Your task to perform on an android device: turn on the 24-hour format for clock Image 0: 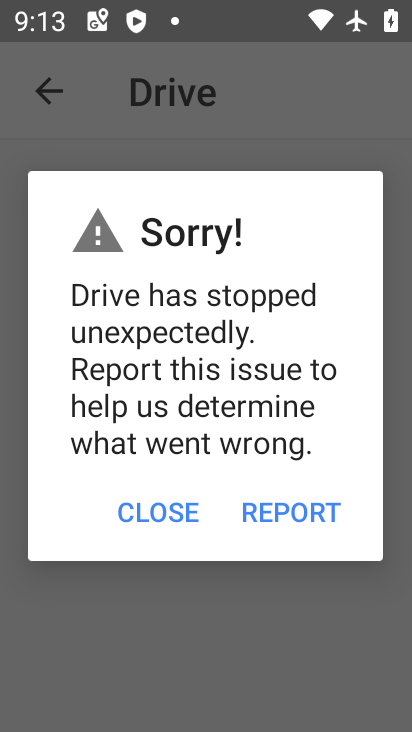
Step 0: press home button
Your task to perform on an android device: turn on the 24-hour format for clock Image 1: 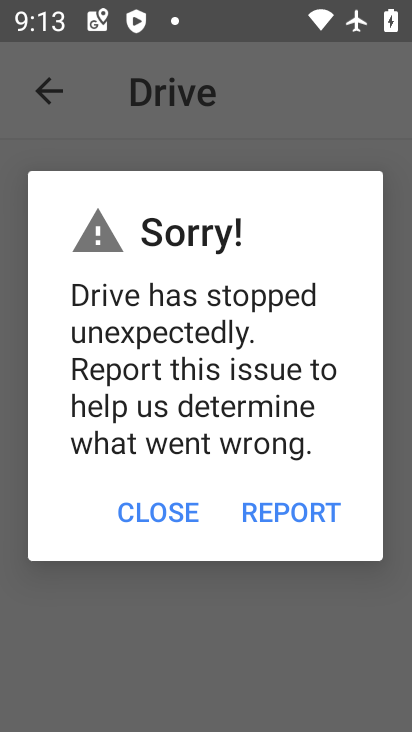
Step 1: press home button
Your task to perform on an android device: turn on the 24-hour format for clock Image 2: 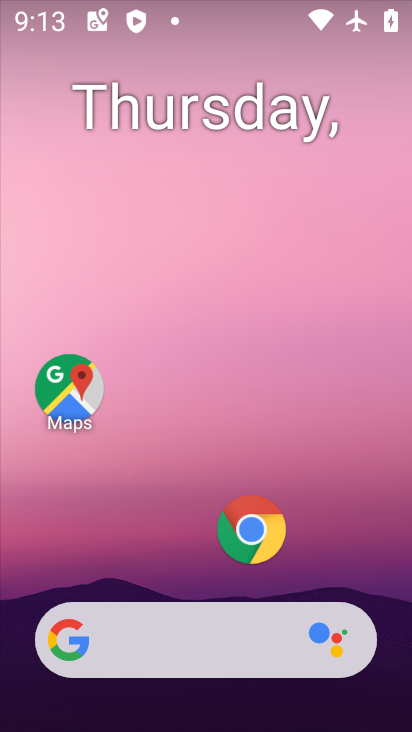
Step 2: drag from (188, 575) to (234, 93)
Your task to perform on an android device: turn on the 24-hour format for clock Image 3: 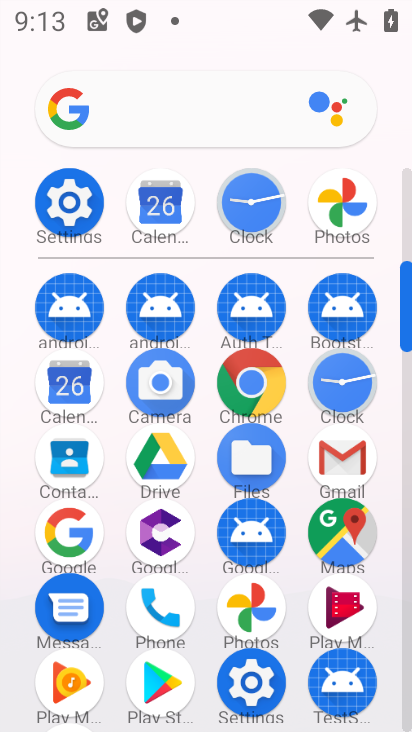
Step 3: click (339, 374)
Your task to perform on an android device: turn on the 24-hour format for clock Image 4: 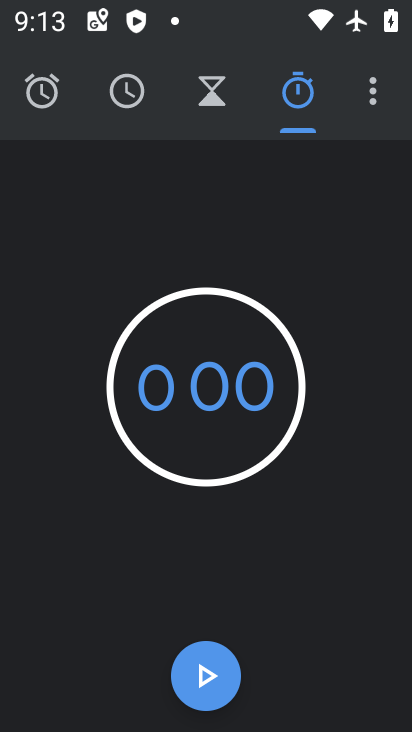
Step 4: click (362, 98)
Your task to perform on an android device: turn on the 24-hour format for clock Image 5: 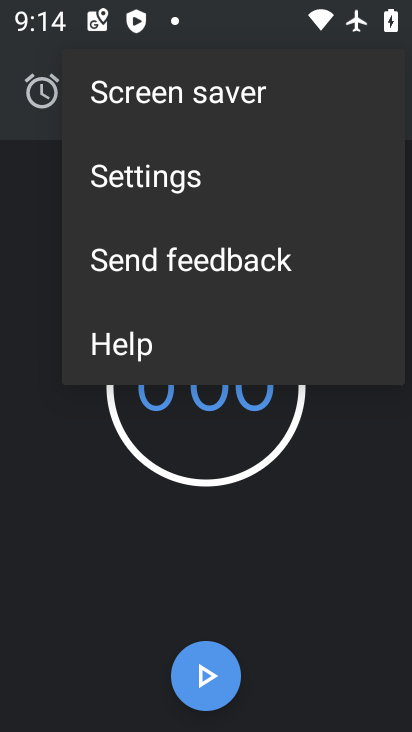
Step 5: click (208, 172)
Your task to perform on an android device: turn on the 24-hour format for clock Image 6: 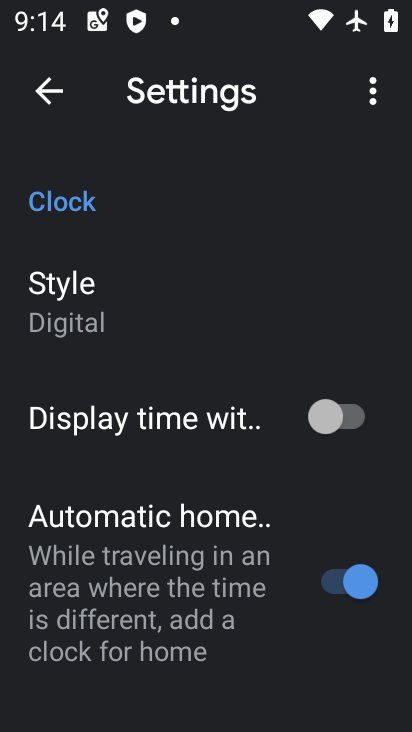
Step 6: drag from (239, 646) to (248, 269)
Your task to perform on an android device: turn on the 24-hour format for clock Image 7: 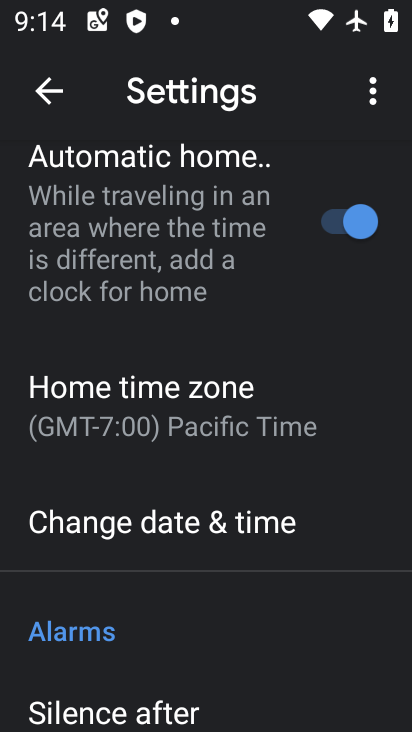
Step 7: click (299, 525)
Your task to perform on an android device: turn on the 24-hour format for clock Image 8: 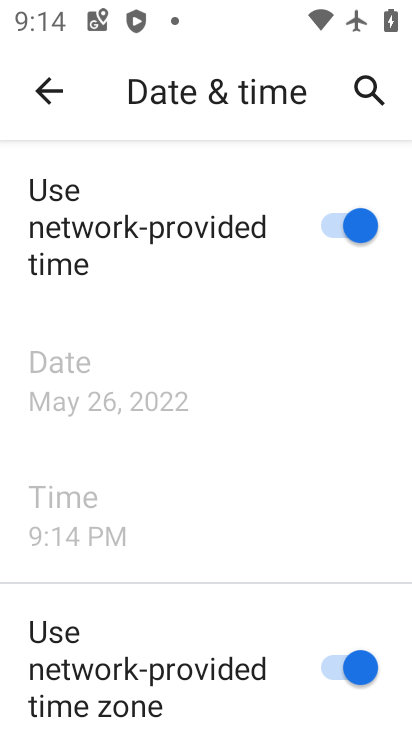
Step 8: drag from (218, 698) to (255, 221)
Your task to perform on an android device: turn on the 24-hour format for clock Image 9: 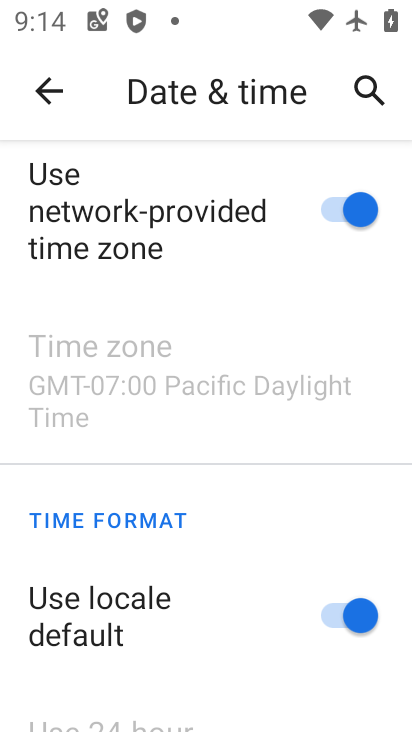
Step 9: drag from (226, 586) to (266, 318)
Your task to perform on an android device: turn on the 24-hour format for clock Image 10: 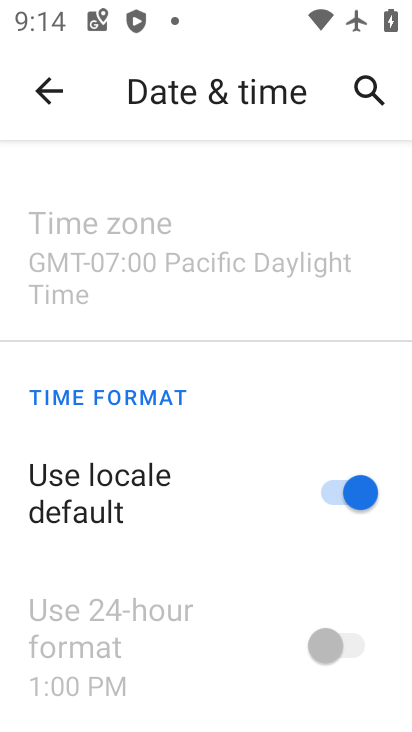
Step 10: click (345, 482)
Your task to perform on an android device: turn on the 24-hour format for clock Image 11: 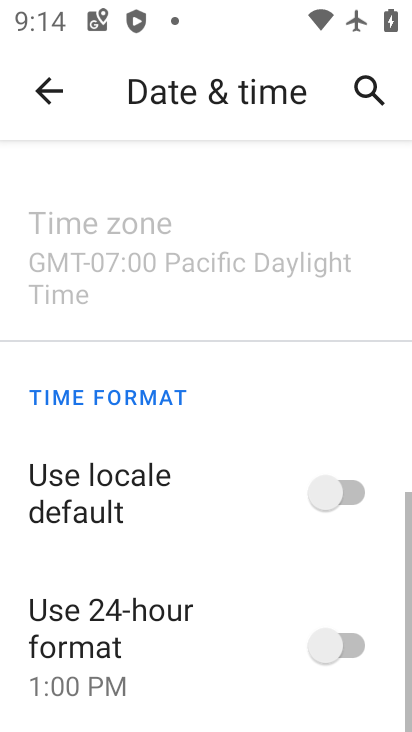
Step 11: click (342, 643)
Your task to perform on an android device: turn on the 24-hour format for clock Image 12: 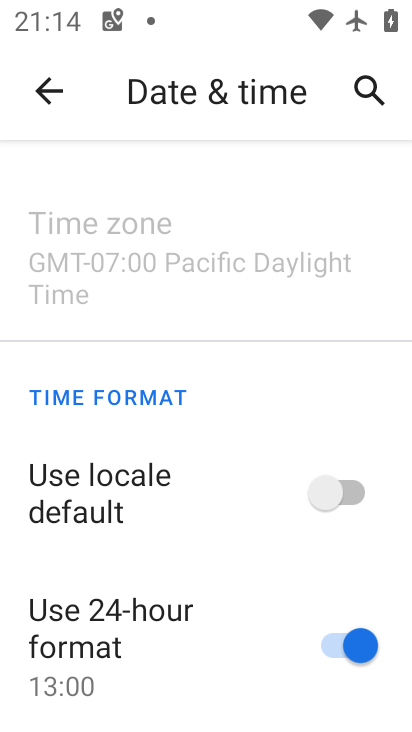
Step 12: task complete